Your task to perform on an android device: delete the emails in spam in the gmail app Image 0: 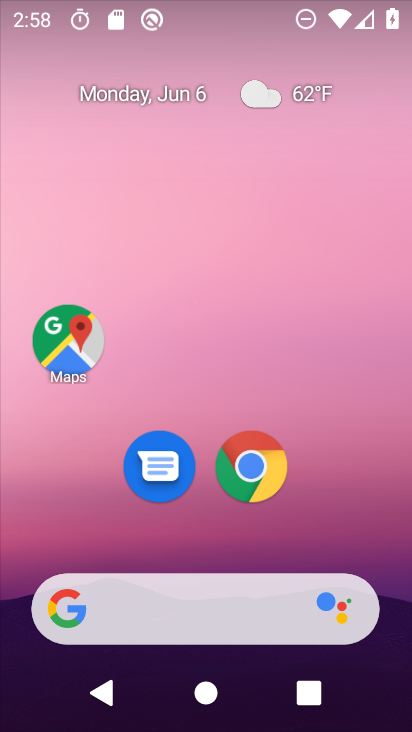
Step 0: drag from (210, 558) to (173, 60)
Your task to perform on an android device: delete the emails in spam in the gmail app Image 1: 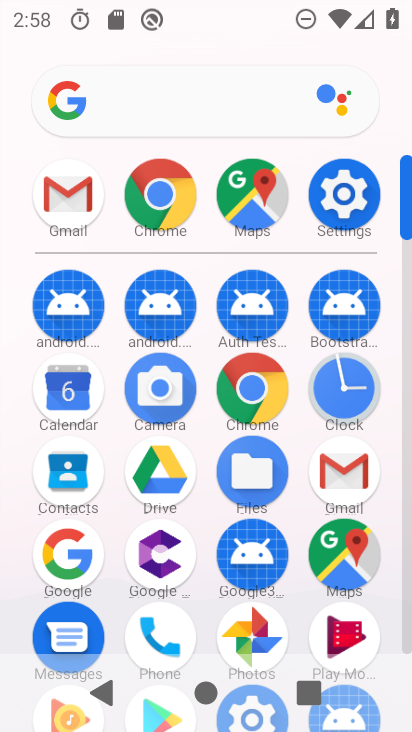
Step 1: click (71, 206)
Your task to perform on an android device: delete the emails in spam in the gmail app Image 2: 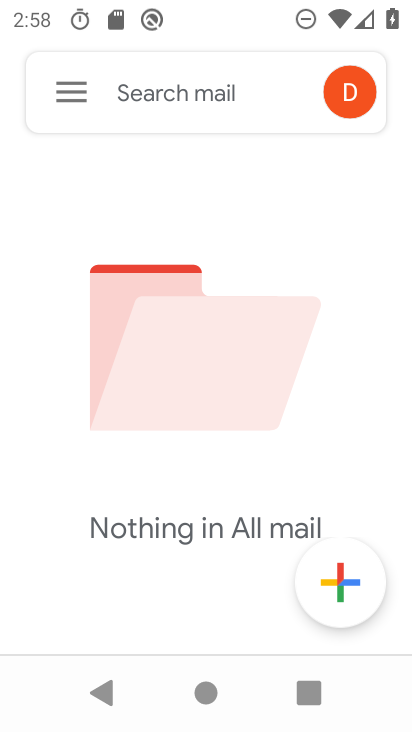
Step 2: click (67, 90)
Your task to perform on an android device: delete the emails in spam in the gmail app Image 3: 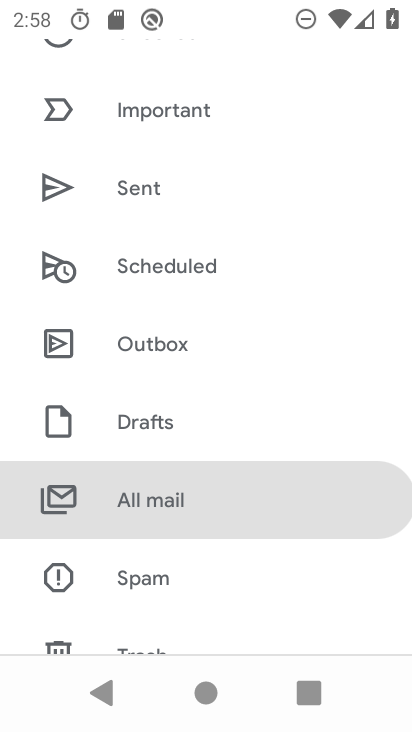
Step 3: click (195, 522)
Your task to perform on an android device: delete the emails in spam in the gmail app Image 4: 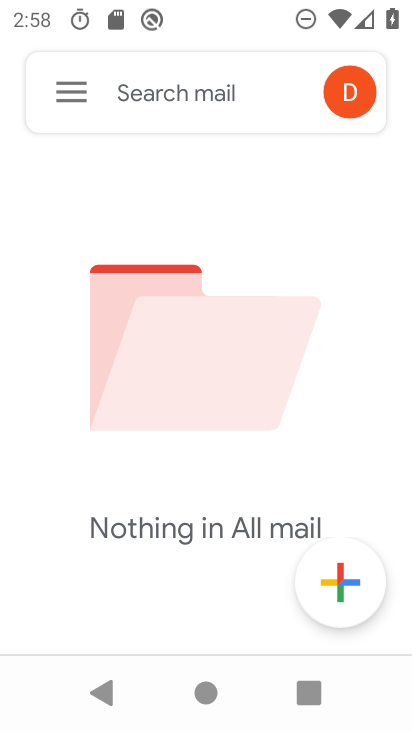
Step 4: task complete